Your task to perform on an android device: Go to CNN.com Image 0: 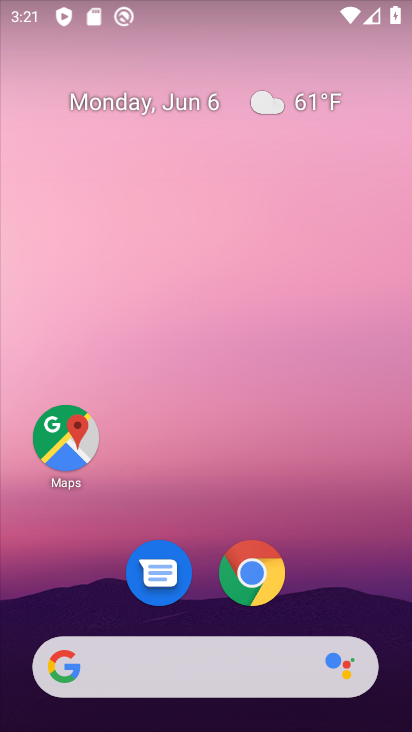
Step 0: click (262, 586)
Your task to perform on an android device: Go to CNN.com Image 1: 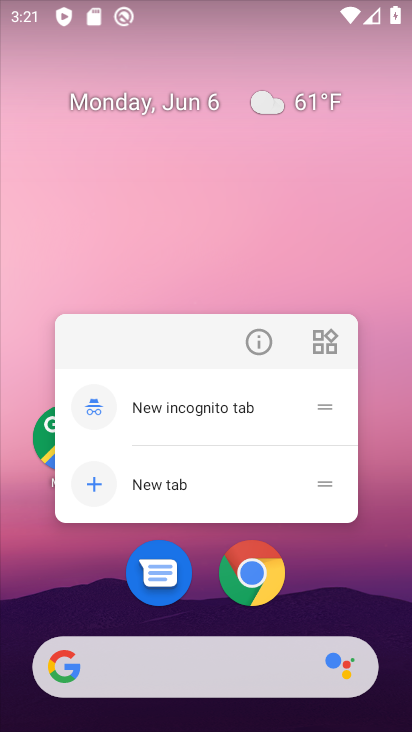
Step 1: click (261, 585)
Your task to perform on an android device: Go to CNN.com Image 2: 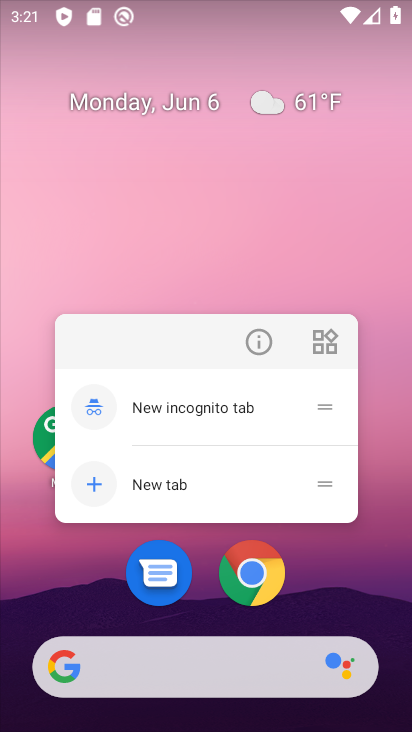
Step 2: click (247, 569)
Your task to perform on an android device: Go to CNN.com Image 3: 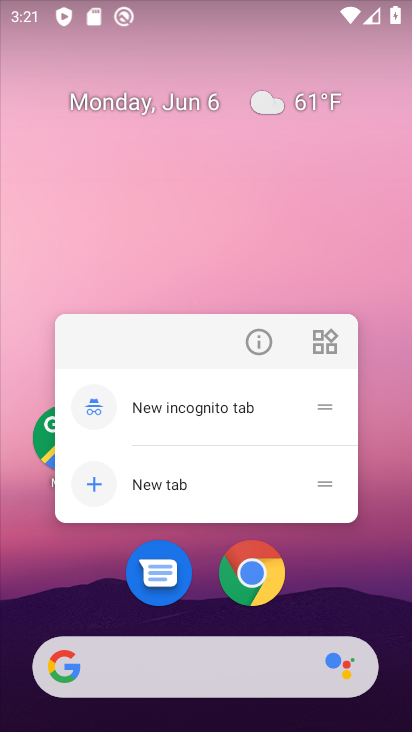
Step 3: click (247, 569)
Your task to perform on an android device: Go to CNN.com Image 4: 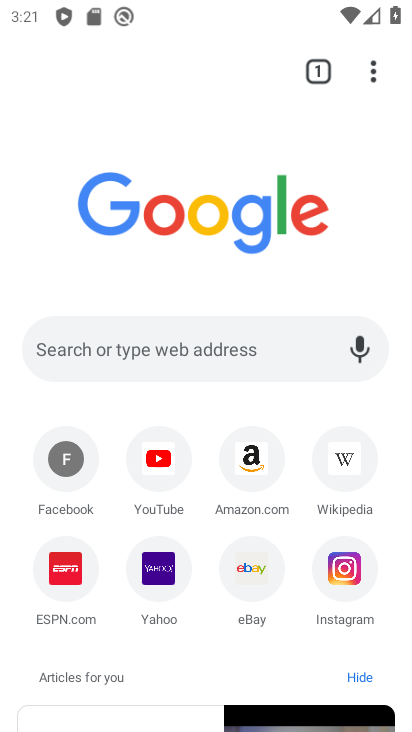
Step 4: click (180, 355)
Your task to perform on an android device: Go to CNN.com Image 5: 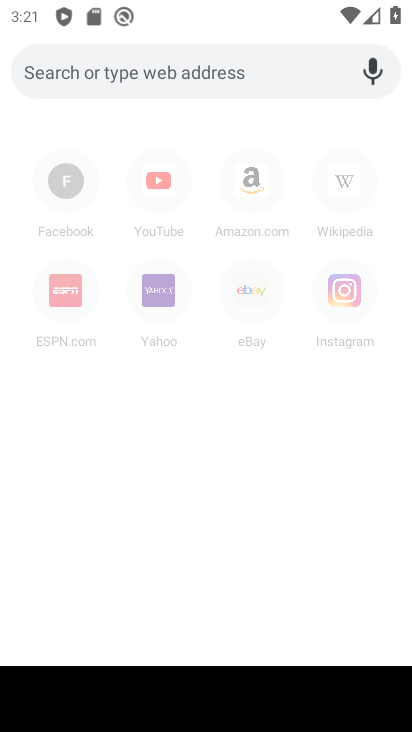
Step 5: type "cnn.com"
Your task to perform on an android device: Go to CNN.com Image 6: 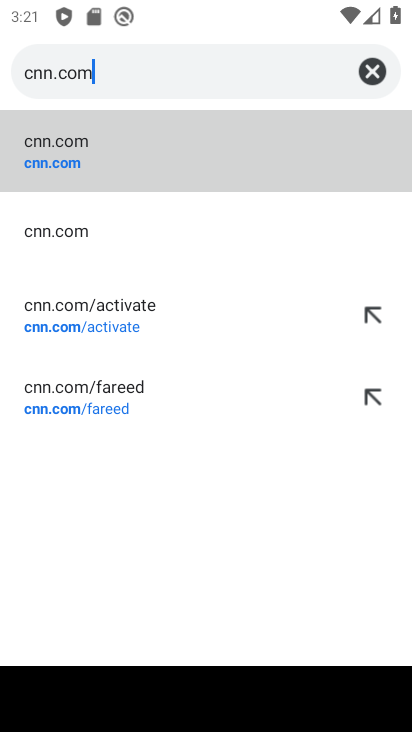
Step 6: click (59, 148)
Your task to perform on an android device: Go to CNN.com Image 7: 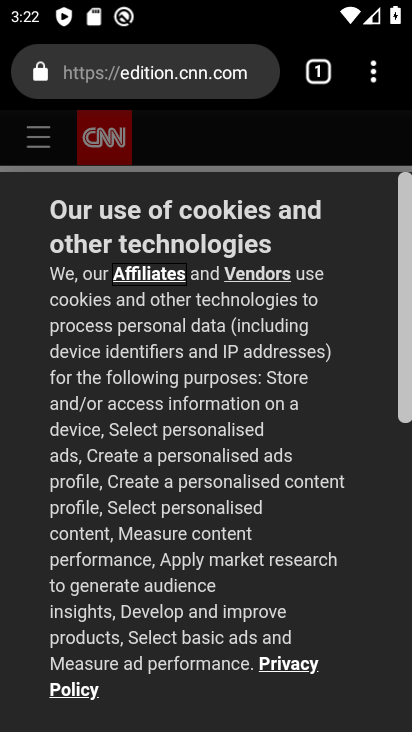
Step 7: task complete